Your task to perform on an android device: open app "Duolingo: language lessons" (install if not already installed) Image 0: 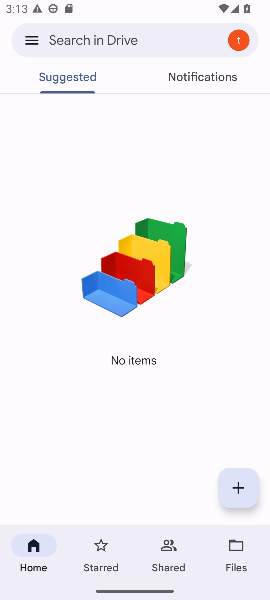
Step 0: press back button
Your task to perform on an android device: open app "Duolingo: language lessons" (install if not already installed) Image 1: 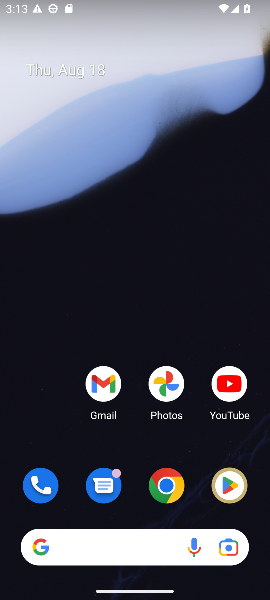
Step 1: click (224, 483)
Your task to perform on an android device: open app "Duolingo: language lessons" (install if not already installed) Image 2: 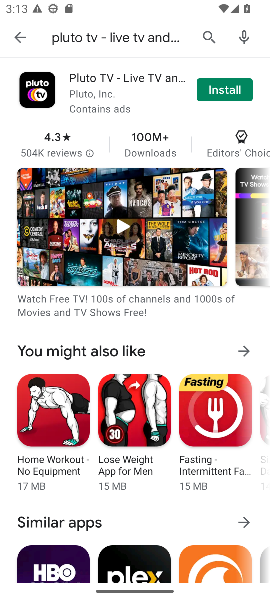
Step 2: click (207, 31)
Your task to perform on an android device: open app "Duolingo: language lessons" (install if not already installed) Image 3: 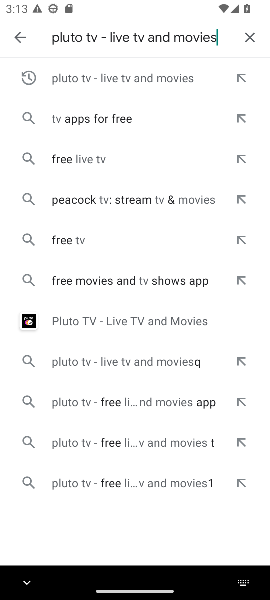
Step 3: click (249, 37)
Your task to perform on an android device: open app "Duolingo: language lessons" (install if not already installed) Image 4: 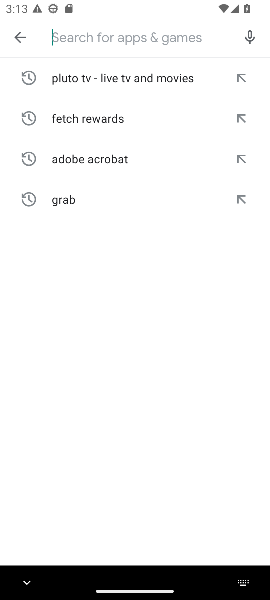
Step 4: click (107, 32)
Your task to perform on an android device: open app "Duolingo: language lessons" (install if not already installed) Image 5: 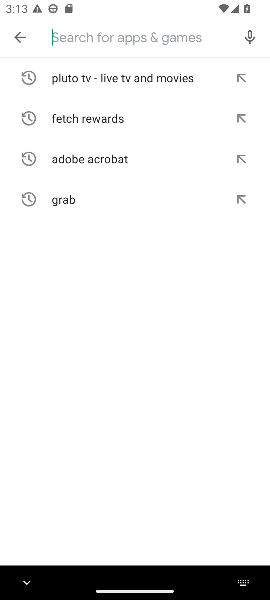
Step 5: type "duolingo "
Your task to perform on an android device: open app "Duolingo: language lessons" (install if not already installed) Image 6: 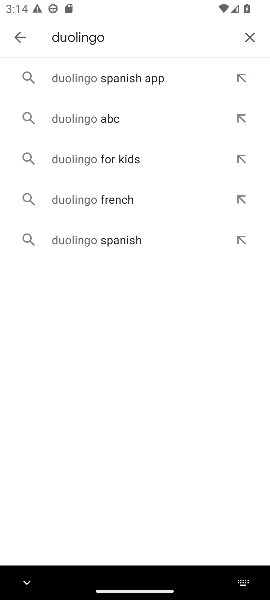
Step 6: click (253, 33)
Your task to perform on an android device: open app "Duolingo: language lessons" (install if not already installed) Image 7: 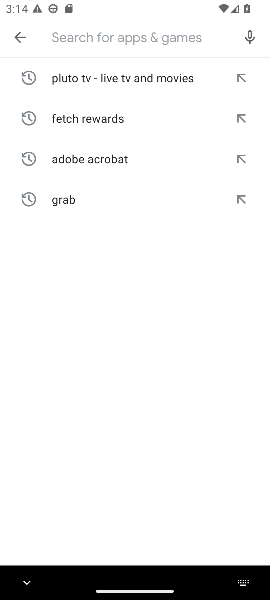
Step 7: click (90, 25)
Your task to perform on an android device: open app "Duolingo: language lessons" (install if not already installed) Image 8: 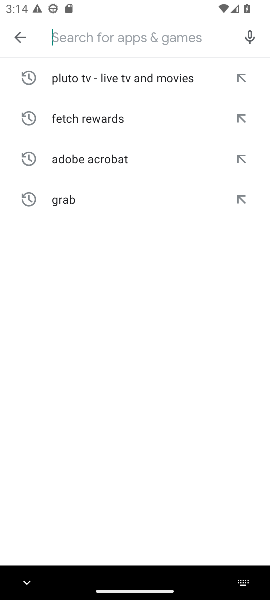
Step 8: type "Duolingo: language lessons"
Your task to perform on an android device: open app "Duolingo: language lessons" (install if not already installed) Image 9: 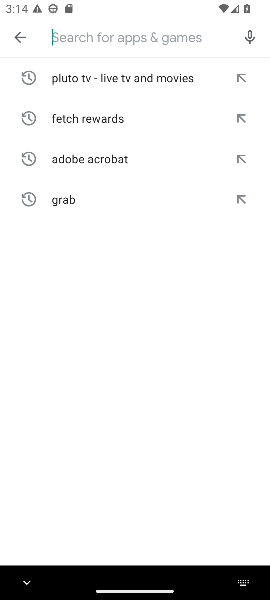
Step 9: click (159, 331)
Your task to perform on an android device: open app "Duolingo: language lessons" (install if not already installed) Image 10: 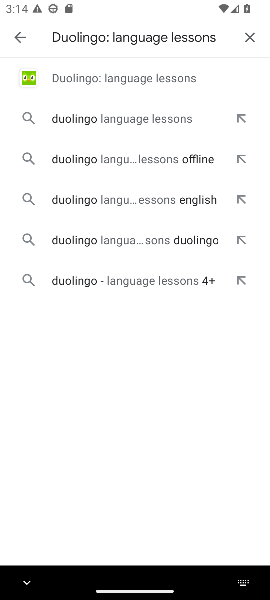
Step 10: click (135, 76)
Your task to perform on an android device: open app "Duolingo: language lessons" (install if not already installed) Image 11: 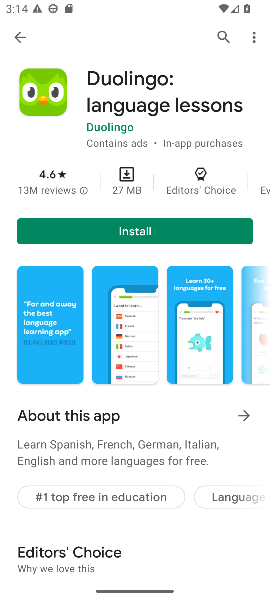
Step 11: click (111, 231)
Your task to perform on an android device: open app "Duolingo: language lessons" (install if not already installed) Image 12: 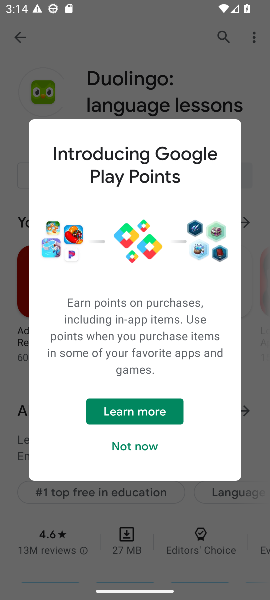
Step 12: click (143, 449)
Your task to perform on an android device: open app "Duolingo: language lessons" (install if not already installed) Image 13: 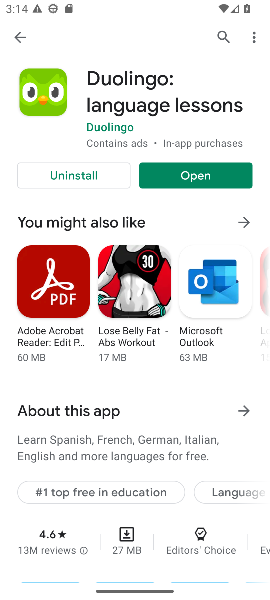
Step 13: click (187, 173)
Your task to perform on an android device: open app "Duolingo: language lessons" (install if not already installed) Image 14: 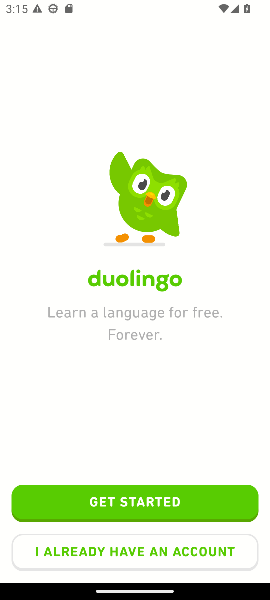
Step 14: task complete